Your task to perform on an android device: check data usage Image 0: 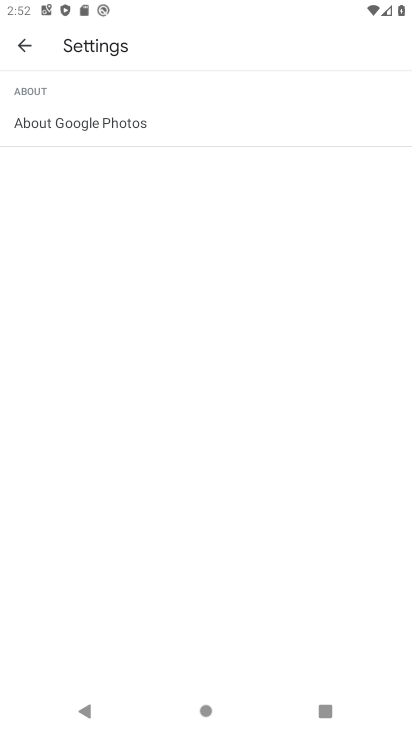
Step 0: press home button
Your task to perform on an android device: check data usage Image 1: 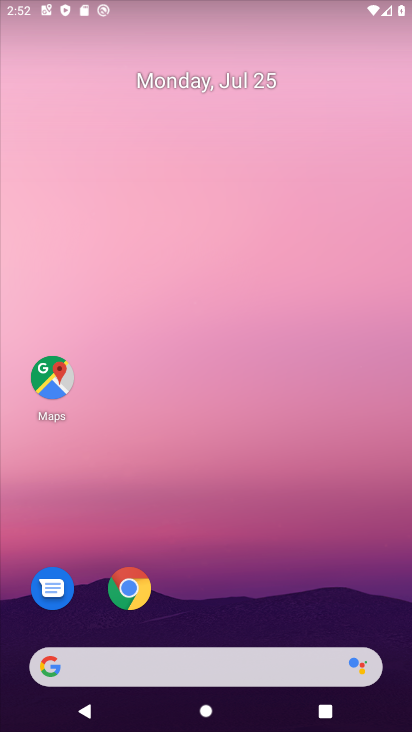
Step 1: drag from (214, 603) to (226, 5)
Your task to perform on an android device: check data usage Image 2: 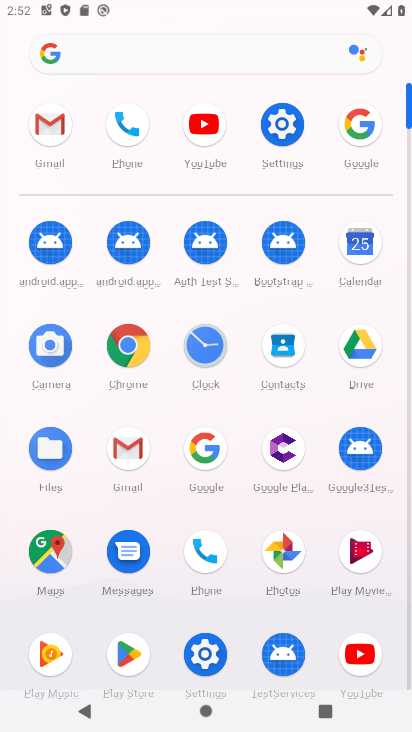
Step 2: click (279, 160)
Your task to perform on an android device: check data usage Image 3: 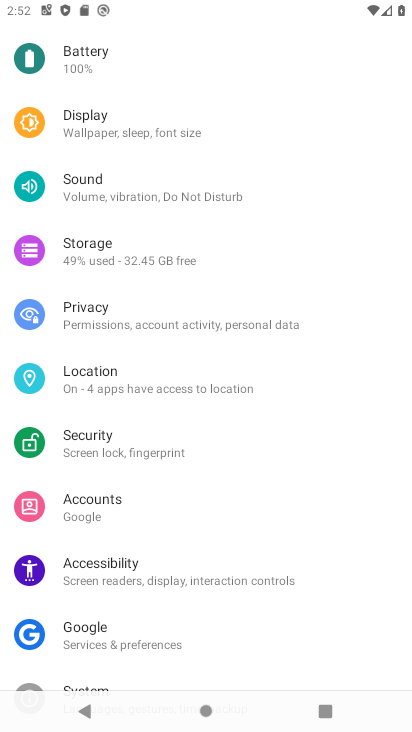
Step 3: drag from (156, 125) to (77, 607)
Your task to perform on an android device: check data usage Image 4: 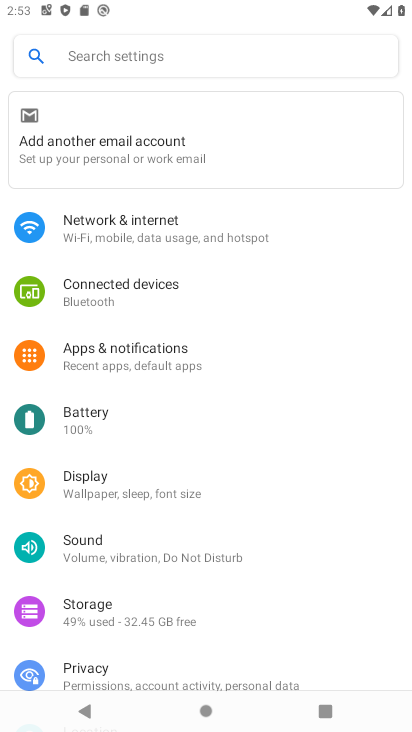
Step 4: click (91, 243)
Your task to perform on an android device: check data usage Image 5: 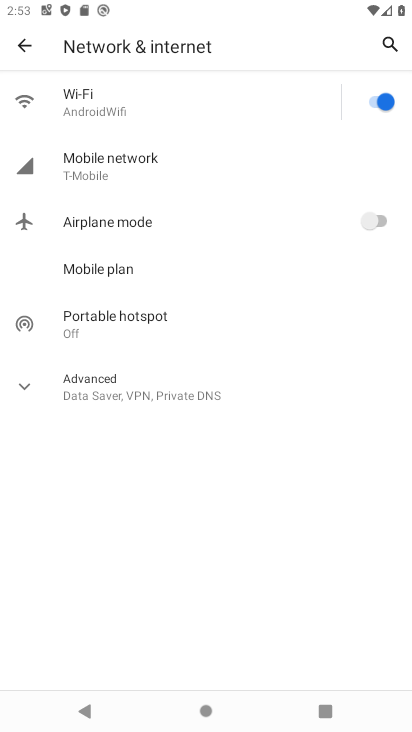
Step 5: click (135, 164)
Your task to perform on an android device: check data usage Image 6: 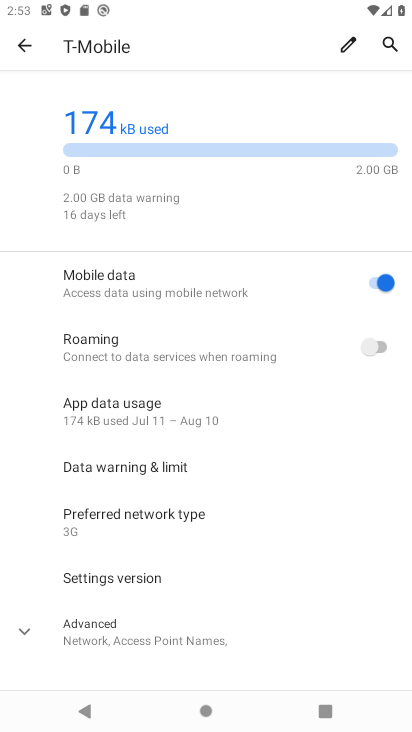
Step 6: click (156, 396)
Your task to perform on an android device: check data usage Image 7: 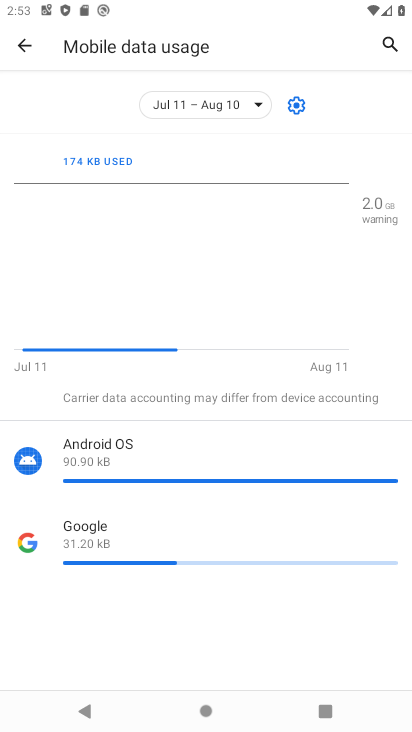
Step 7: task complete